Your task to perform on an android device: Open the web browser Image 0: 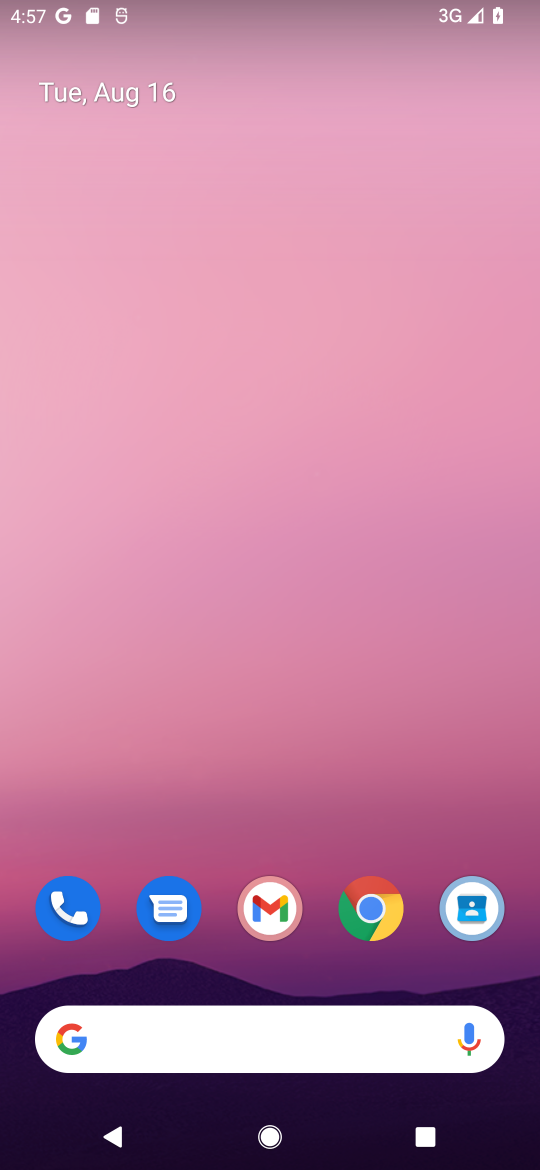
Step 0: click (360, 910)
Your task to perform on an android device: Open the web browser Image 1: 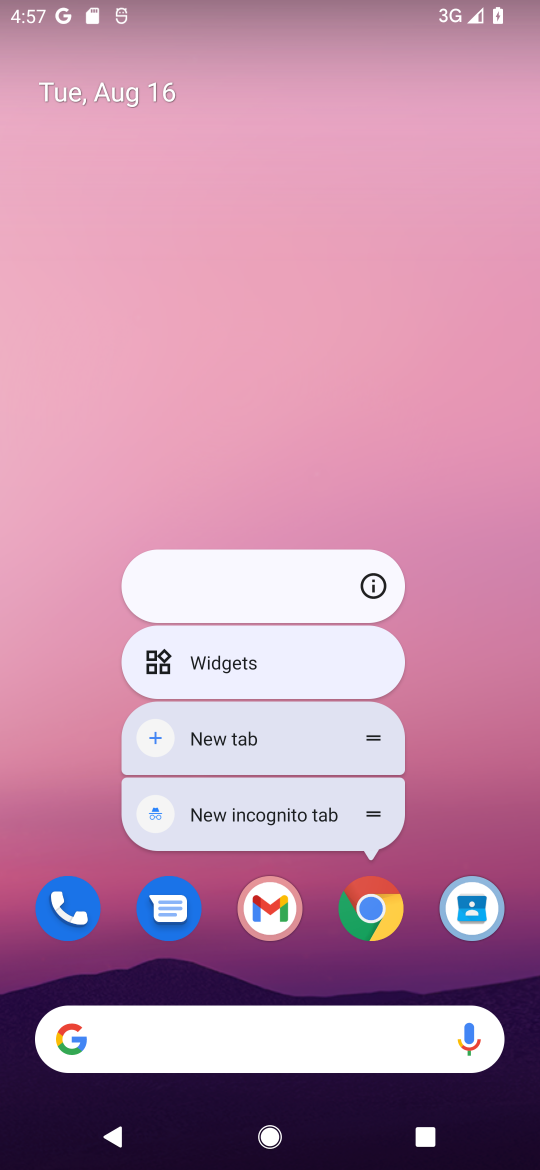
Step 1: click (375, 911)
Your task to perform on an android device: Open the web browser Image 2: 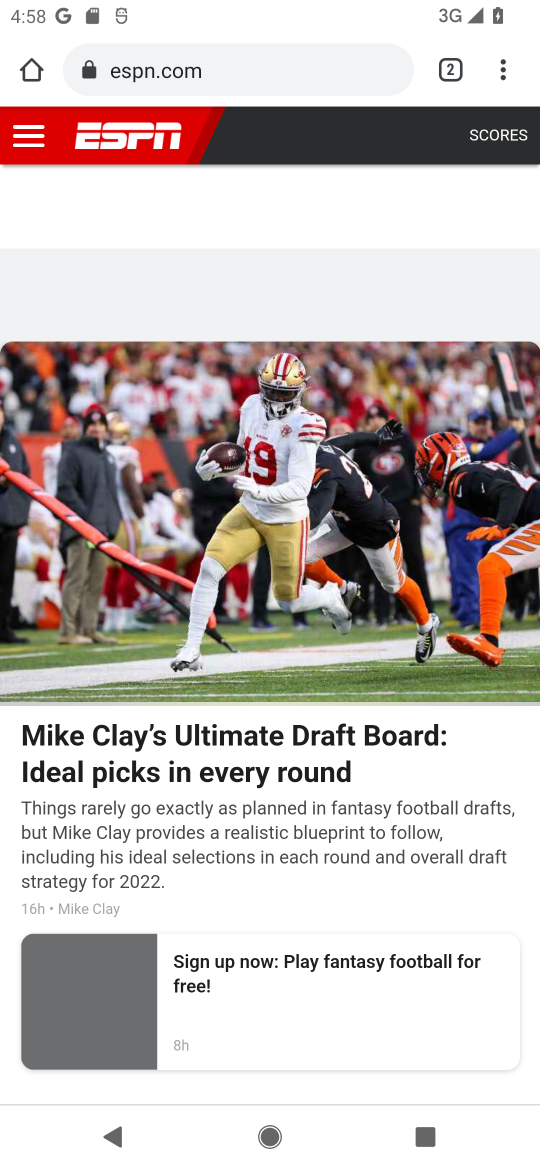
Step 2: task complete